Your task to perform on an android device: What's the weather going to be this weekend? Image 0: 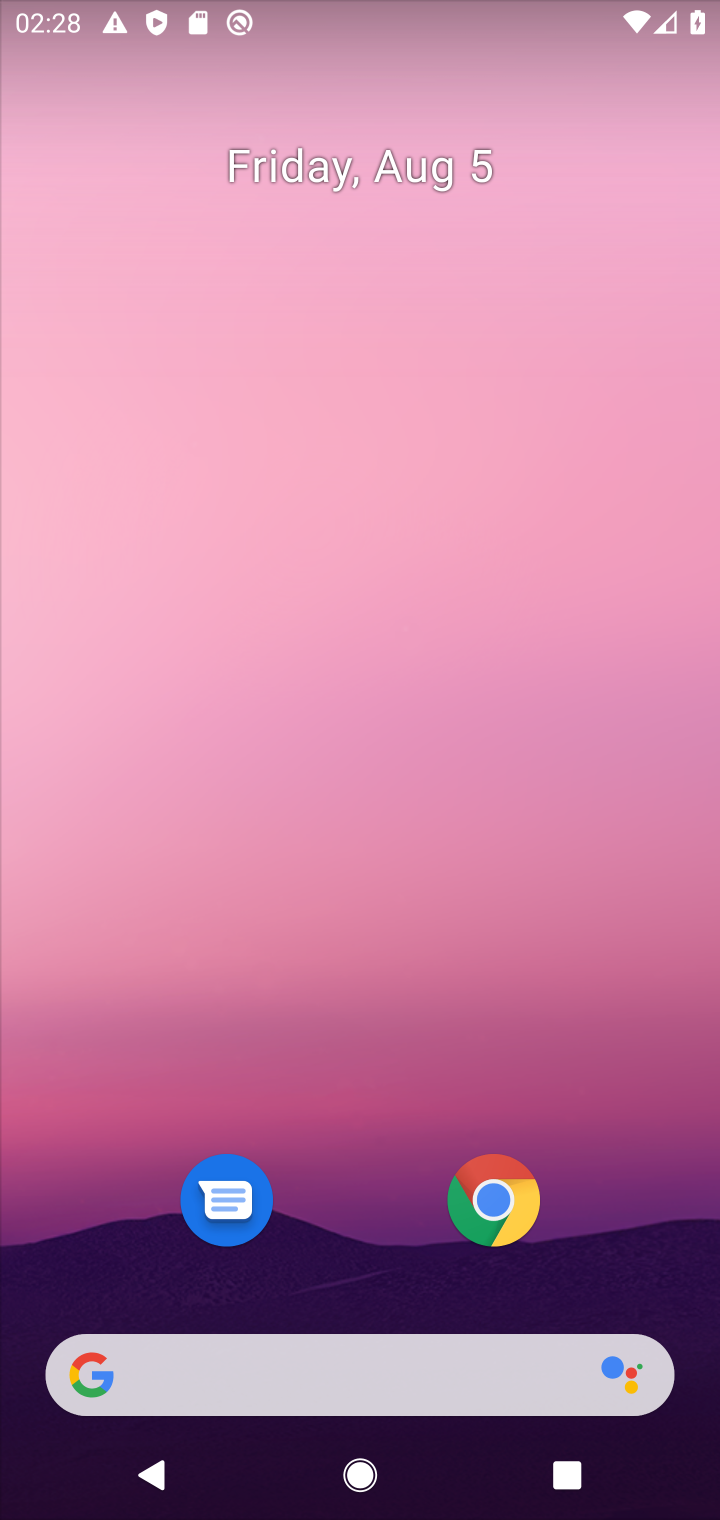
Step 0: drag from (351, 1267) to (351, 275)
Your task to perform on an android device: What's the weather going to be this weekend? Image 1: 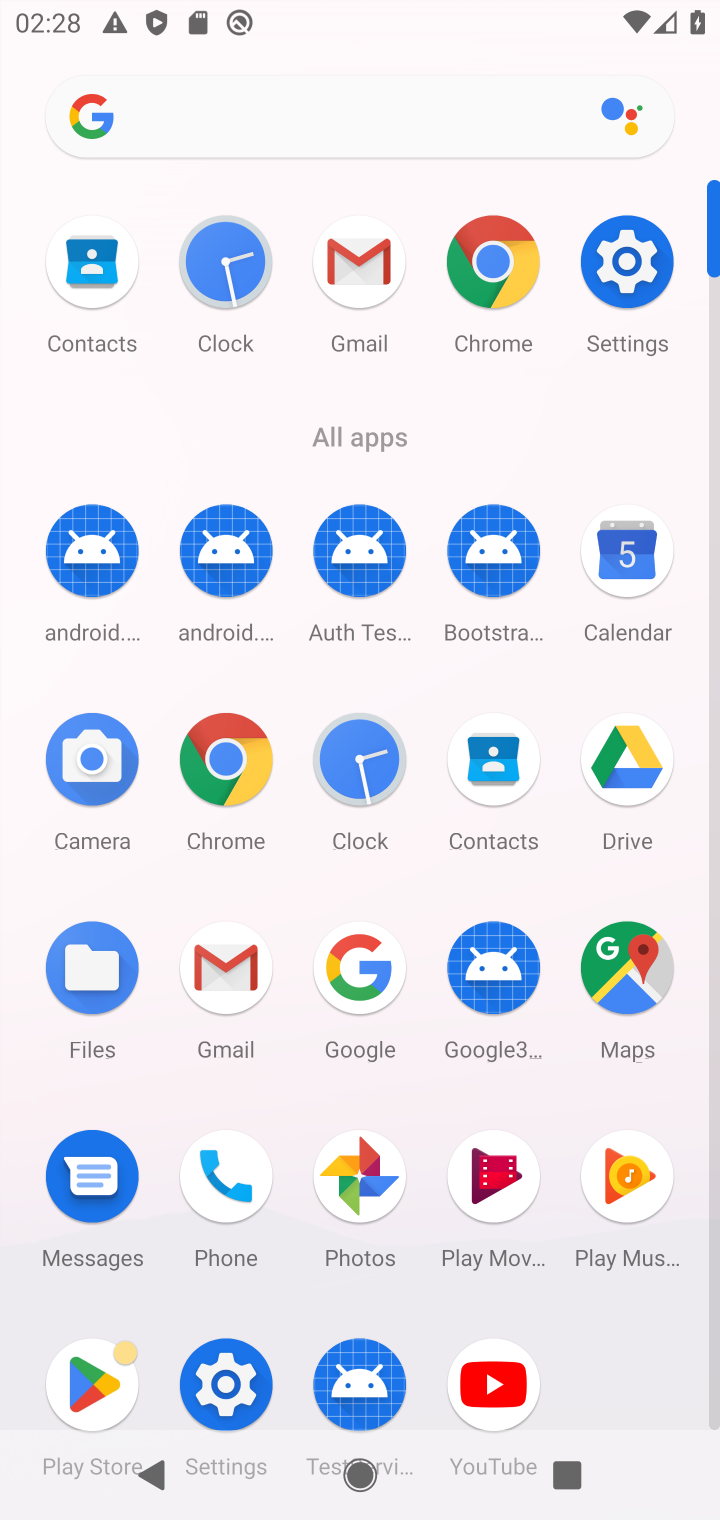
Step 1: click (367, 962)
Your task to perform on an android device: What's the weather going to be this weekend? Image 2: 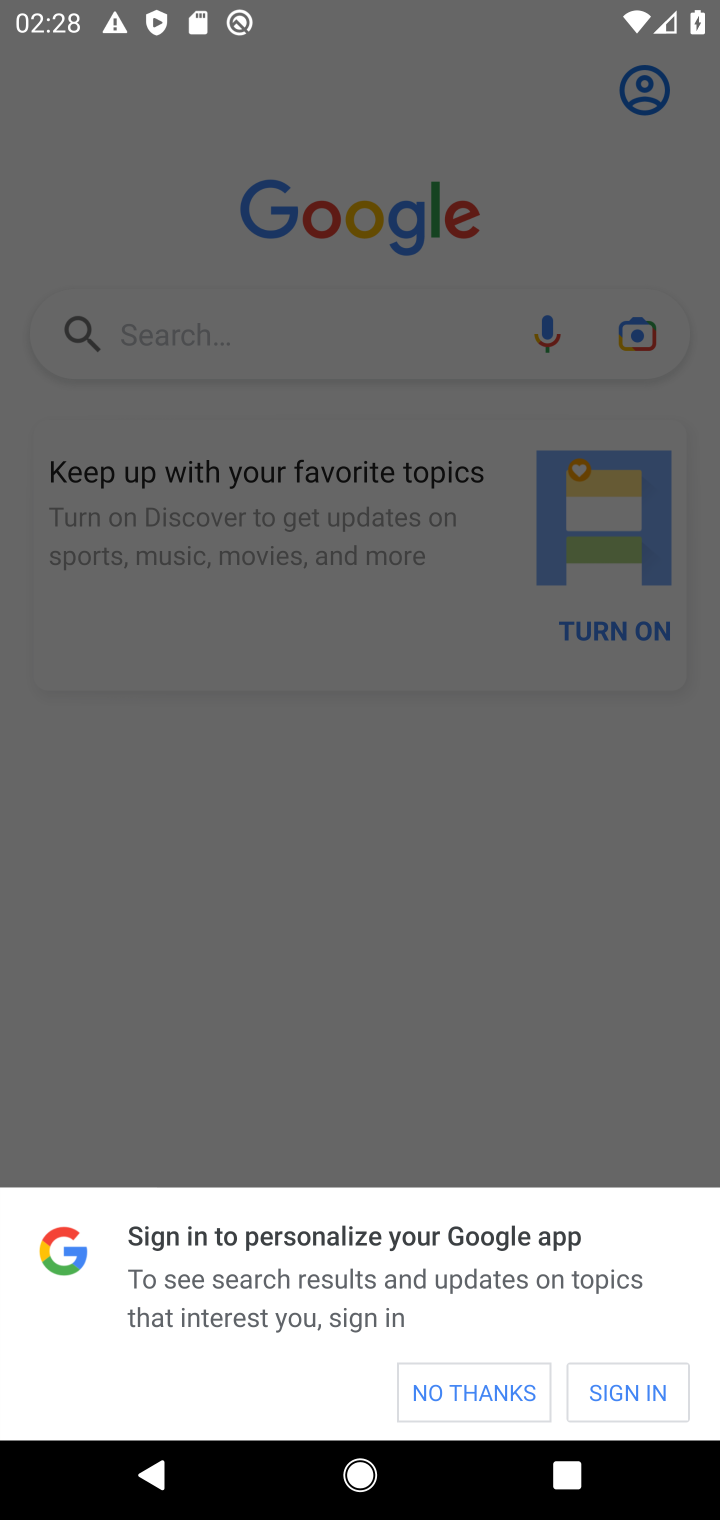
Step 2: click (477, 1417)
Your task to perform on an android device: What's the weather going to be this weekend? Image 3: 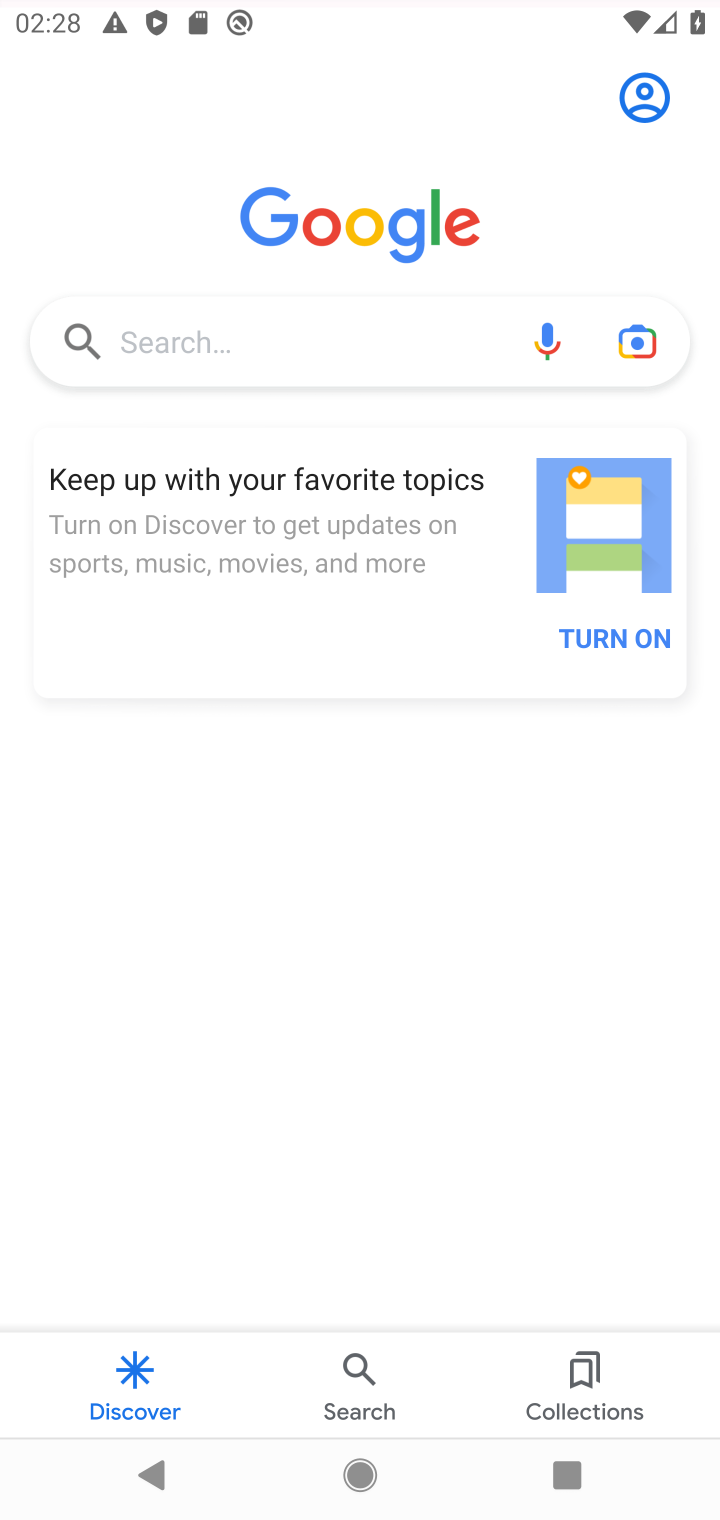
Step 3: click (211, 358)
Your task to perform on an android device: What's the weather going to be this weekend? Image 4: 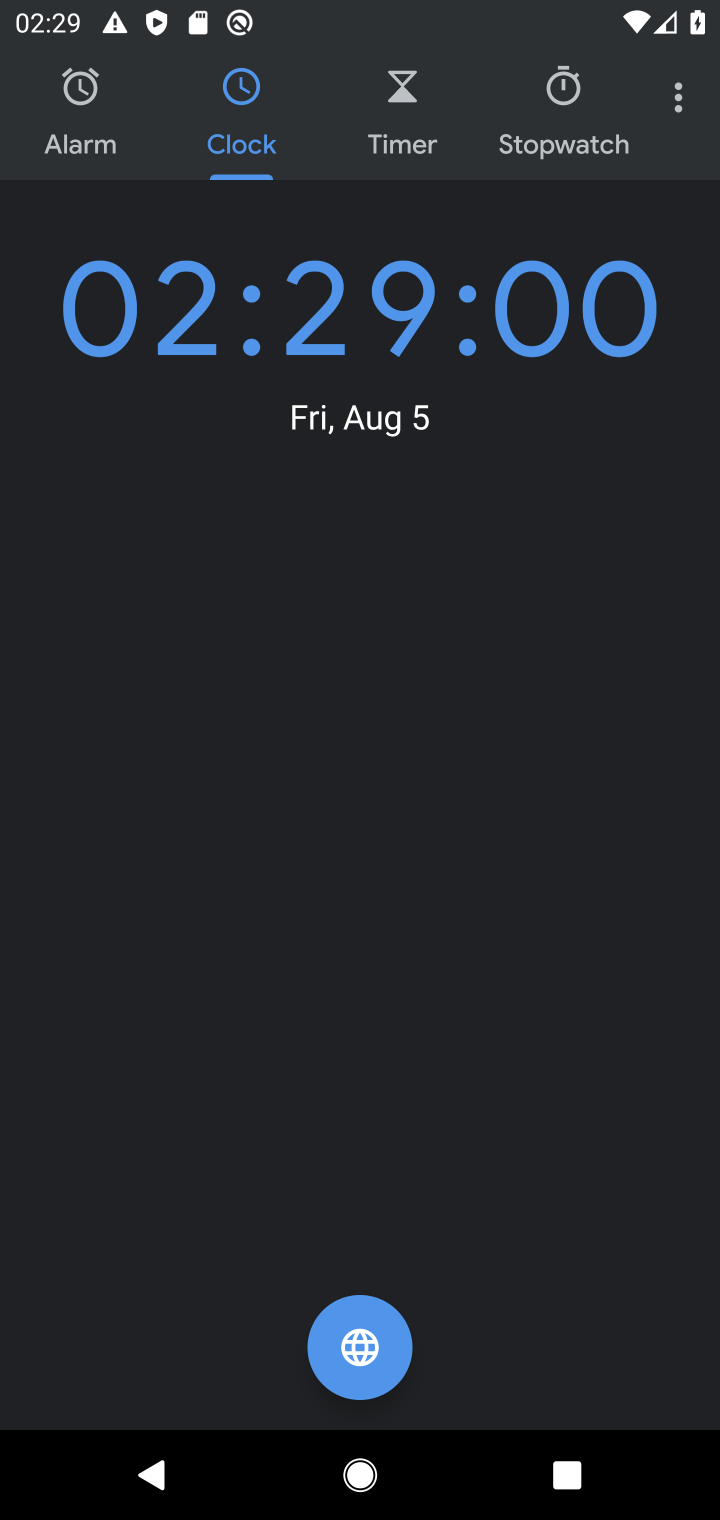
Step 4: press home button
Your task to perform on an android device: What's the weather going to be this weekend? Image 5: 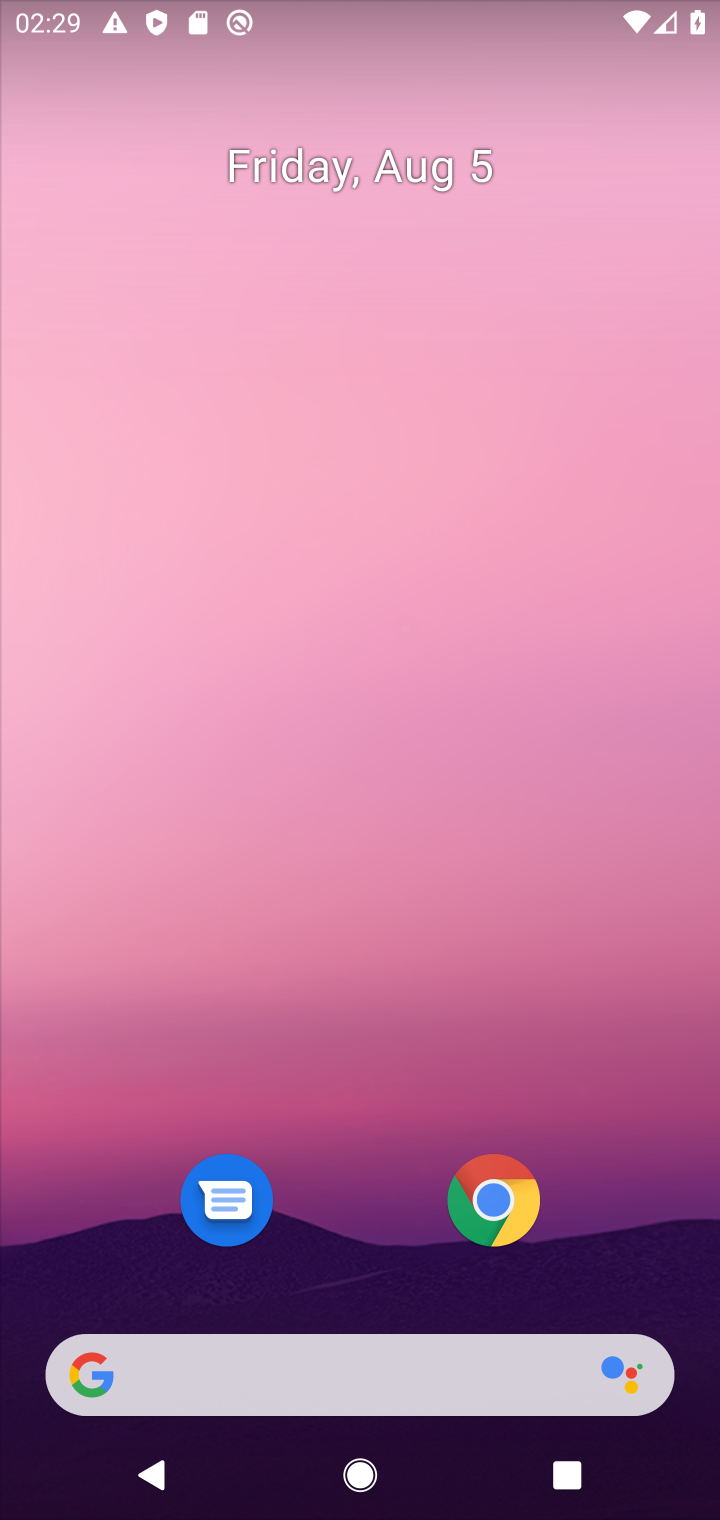
Step 5: drag from (357, 1218) to (357, 279)
Your task to perform on an android device: What's the weather going to be this weekend? Image 6: 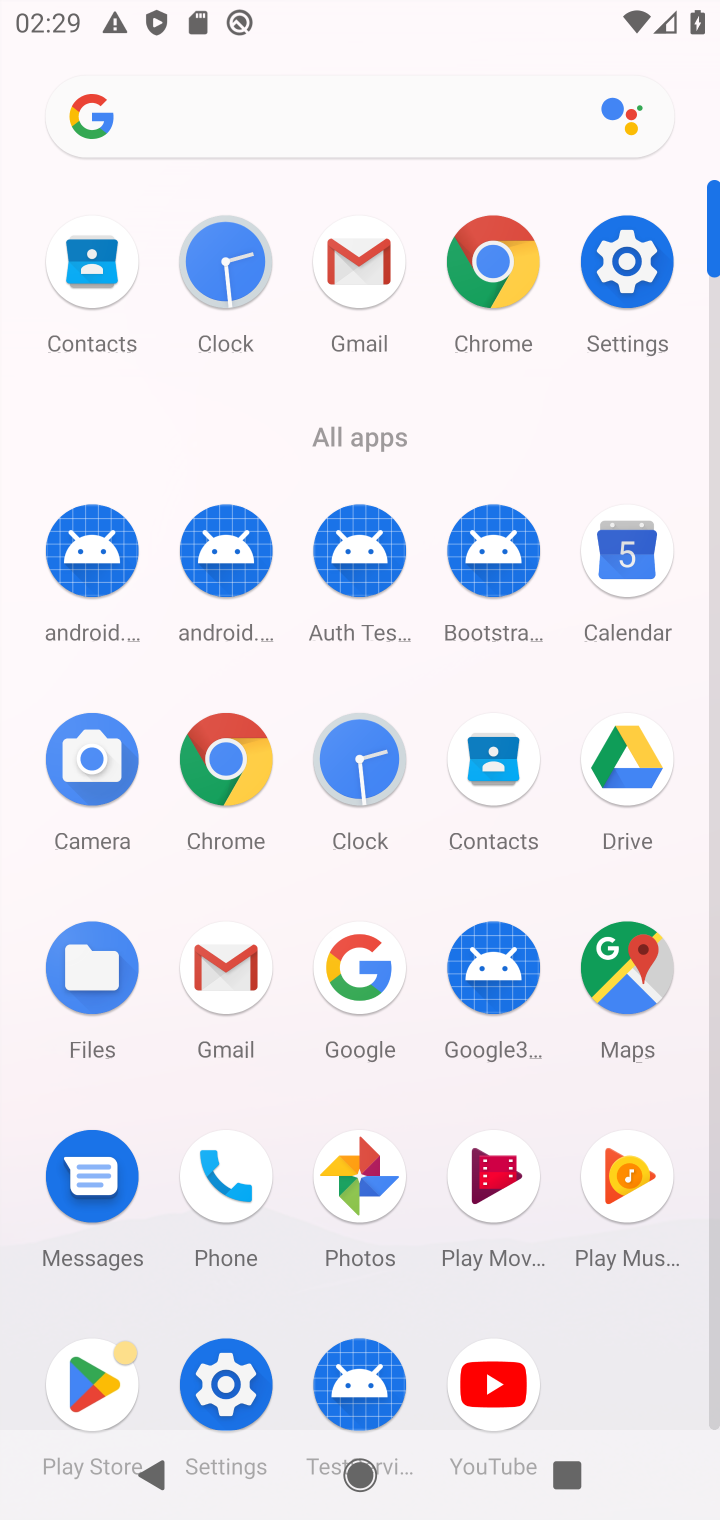
Step 6: click (337, 1007)
Your task to perform on an android device: What's the weather going to be this weekend? Image 7: 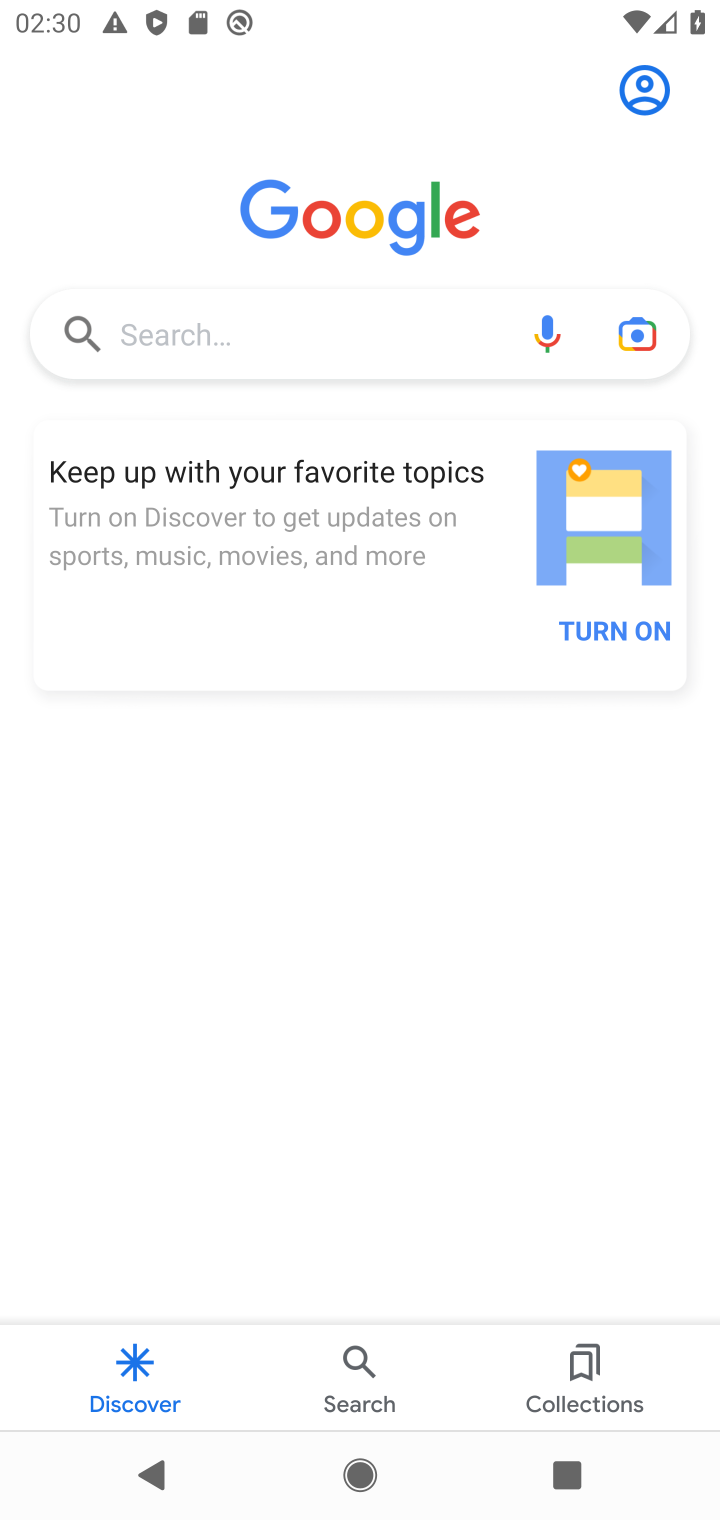
Step 7: task complete